Your task to perform on an android device: Go to settings Image 0: 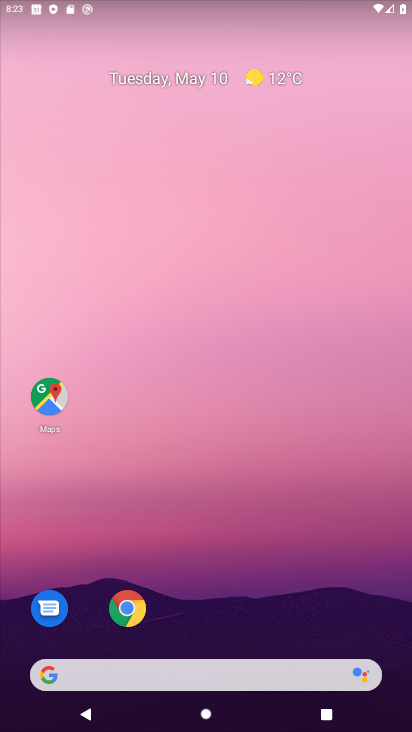
Step 0: drag from (193, 660) to (206, 307)
Your task to perform on an android device: Go to settings Image 1: 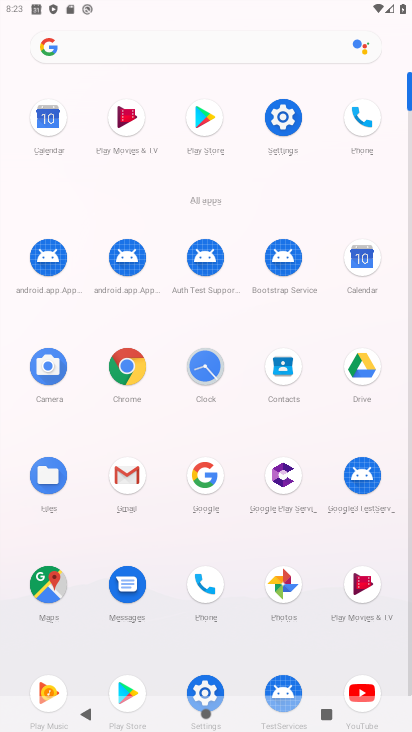
Step 1: click (283, 110)
Your task to perform on an android device: Go to settings Image 2: 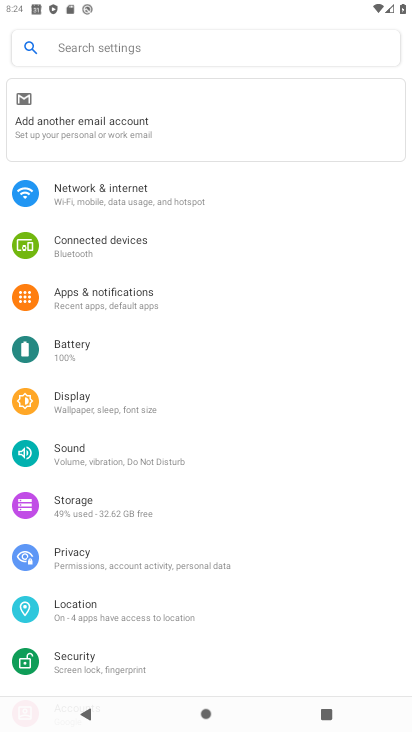
Step 2: task complete